Your task to perform on an android device: Open the calendar app, open the side menu, and click the "Day" option Image 0: 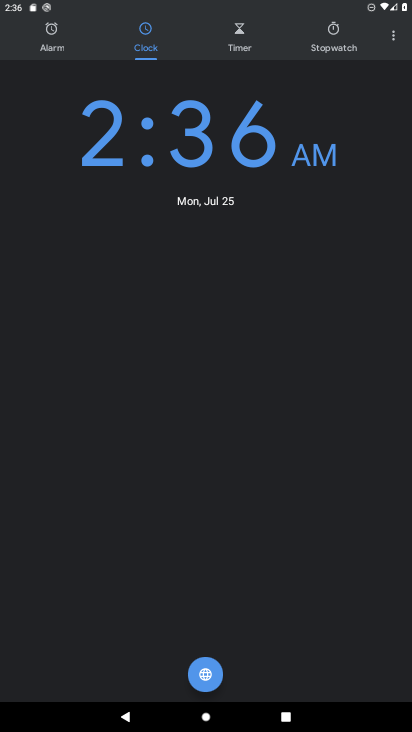
Step 0: press home button
Your task to perform on an android device: Open the calendar app, open the side menu, and click the "Day" option Image 1: 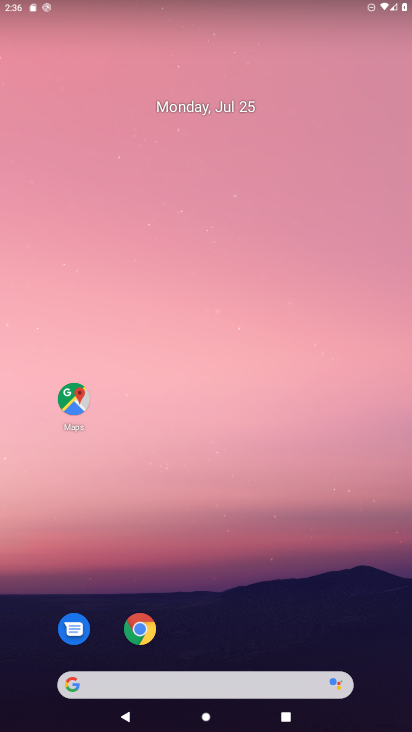
Step 1: drag from (211, 612) to (250, 109)
Your task to perform on an android device: Open the calendar app, open the side menu, and click the "Day" option Image 2: 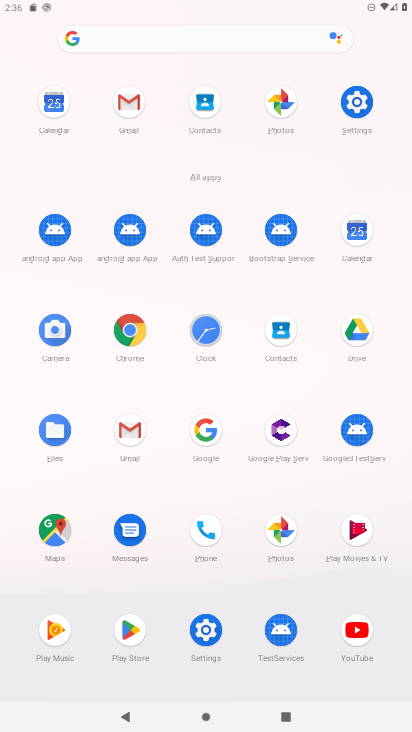
Step 2: click (361, 229)
Your task to perform on an android device: Open the calendar app, open the side menu, and click the "Day" option Image 3: 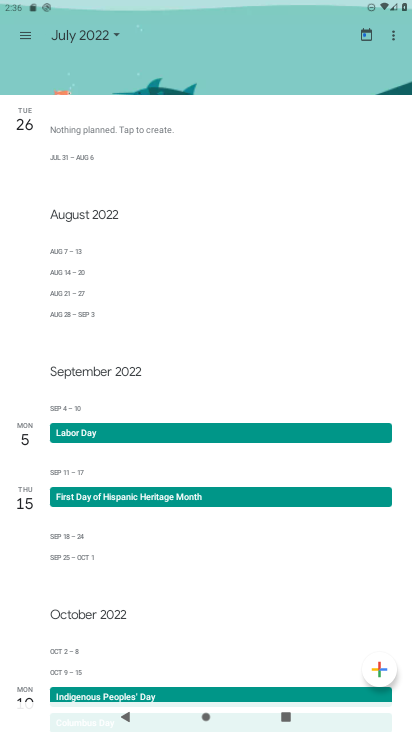
Step 3: click (31, 33)
Your task to perform on an android device: Open the calendar app, open the side menu, and click the "Day" option Image 4: 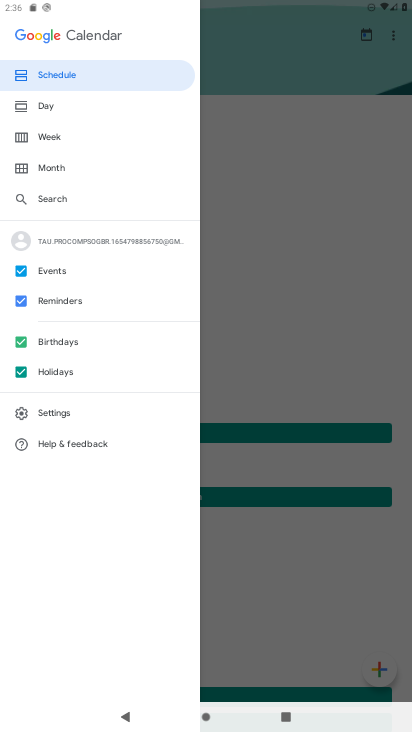
Step 4: click (46, 100)
Your task to perform on an android device: Open the calendar app, open the side menu, and click the "Day" option Image 5: 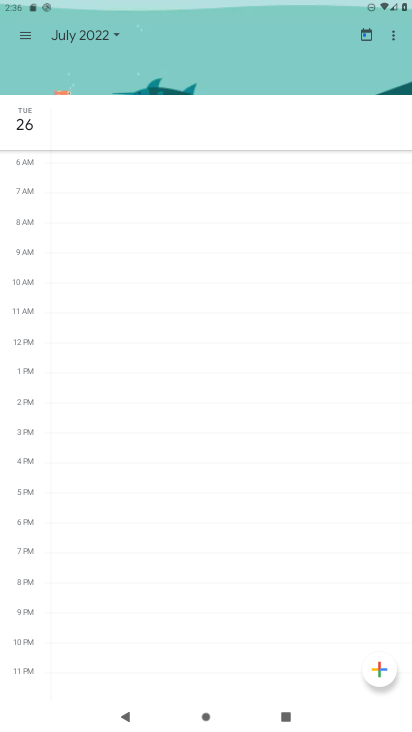
Step 5: task complete